Your task to perform on an android device: find which apps use the phone's location Image 0: 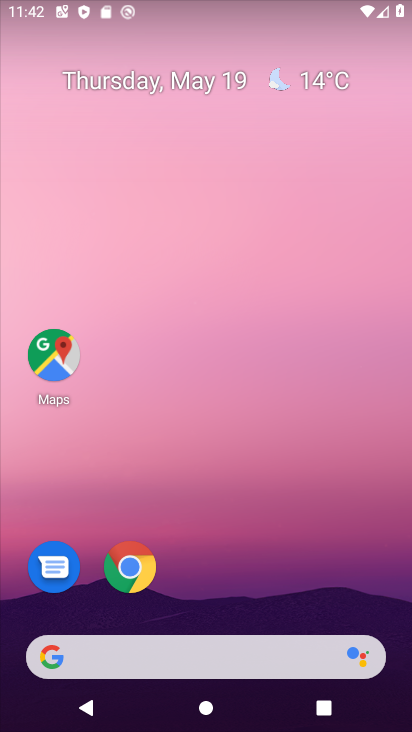
Step 0: drag from (231, 466) to (200, 23)
Your task to perform on an android device: find which apps use the phone's location Image 1: 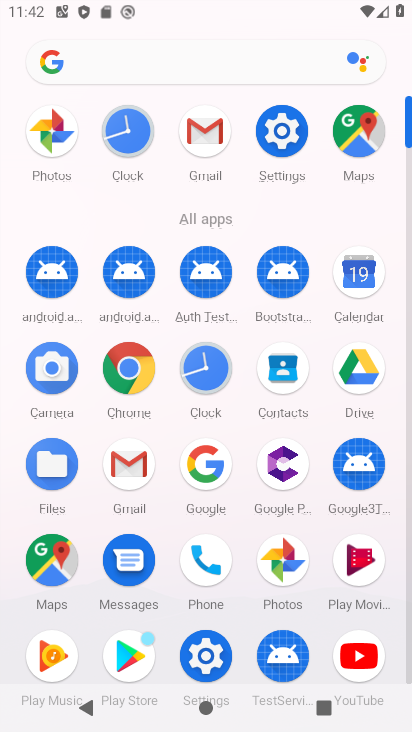
Step 1: click (283, 153)
Your task to perform on an android device: find which apps use the phone's location Image 2: 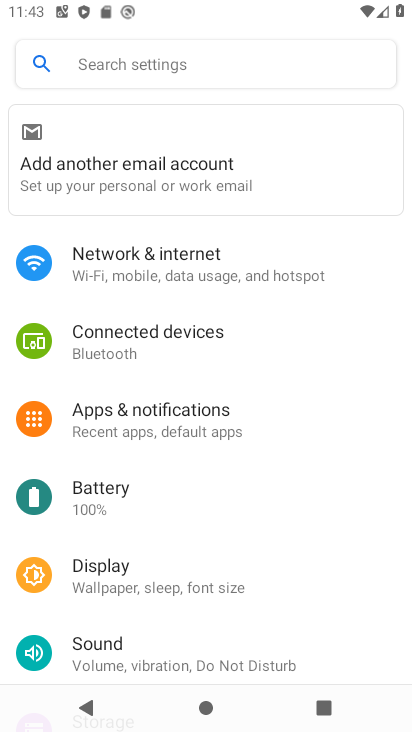
Step 2: drag from (146, 652) to (160, 215)
Your task to perform on an android device: find which apps use the phone's location Image 3: 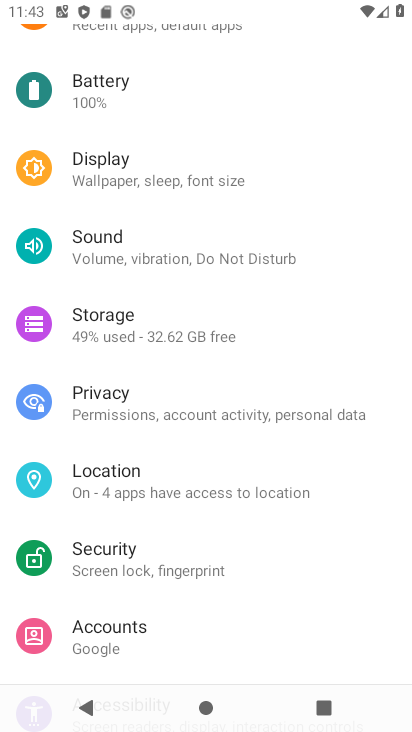
Step 3: click (122, 491)
Your task to perform on an android device: find which apps use the phone's location Image 4: 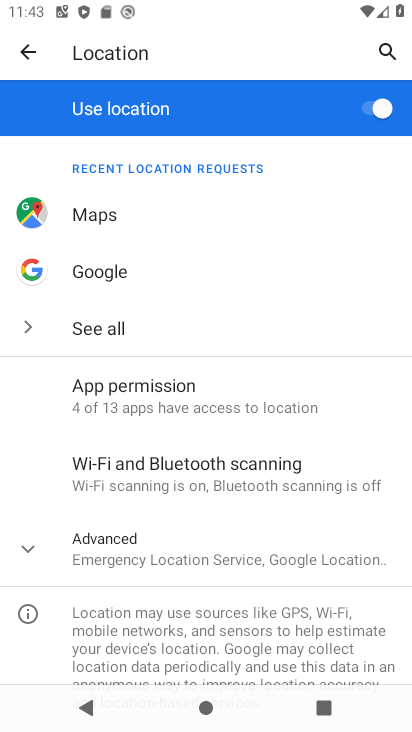
Step 4: drag from (166, 551) to (160, 231)
Your task to perform on an android device: find which apps use the phone's location Image 5: 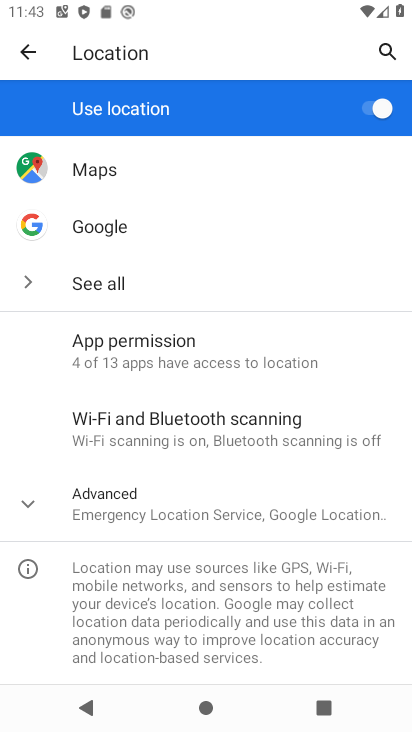
Step 5: click (161, 369)
Your task to perform on an android device: find which apps use the phone's location Image 6: 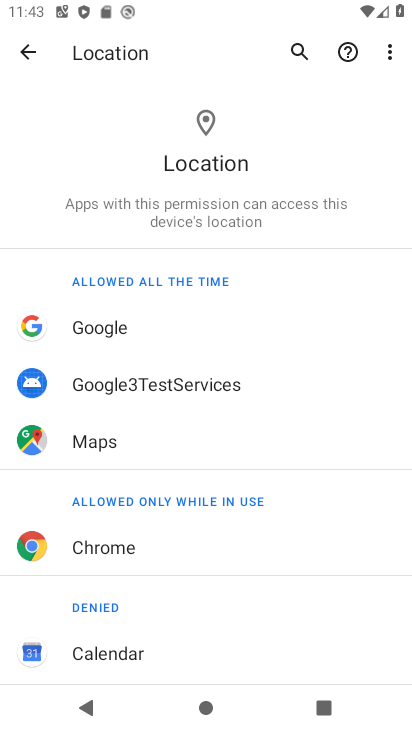
Step 6: task complete